Your task to perform on an android device: check battery use Image 0: 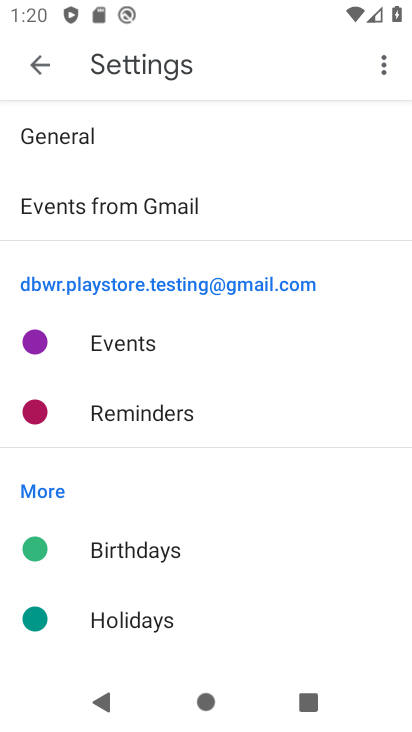
Step 0: press back button
Your task to perform on an android device: check battery use Image 1: 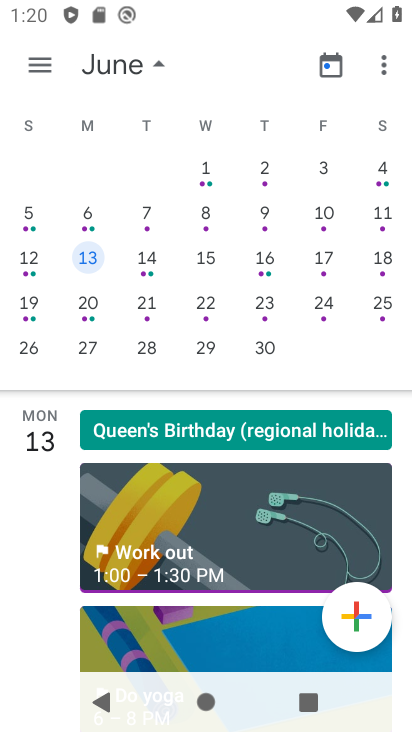
Step 1: press back button
Your task to perform on an android device: check battery use Image 2: 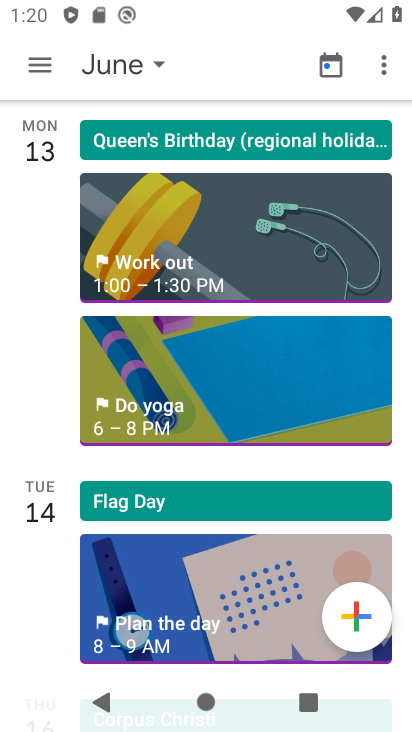
Step 2: press back button
Your task to perform on an android device: check battery use Image 3: 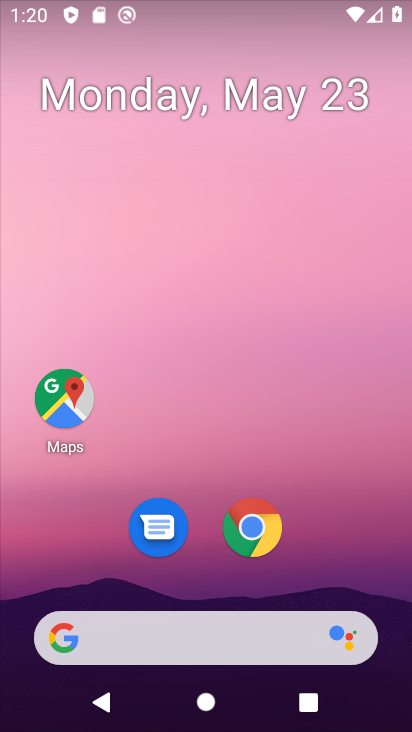
Step 3: drag from (185, 385) to (243, 41)
Your task to perform on an android device: check battery use Image 4: 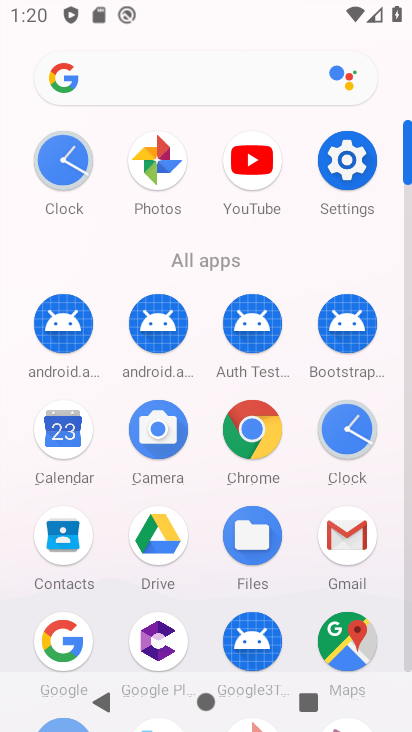
Step 4: click (351, 156)
Your task to perform on an android device: check battery use Image 5: 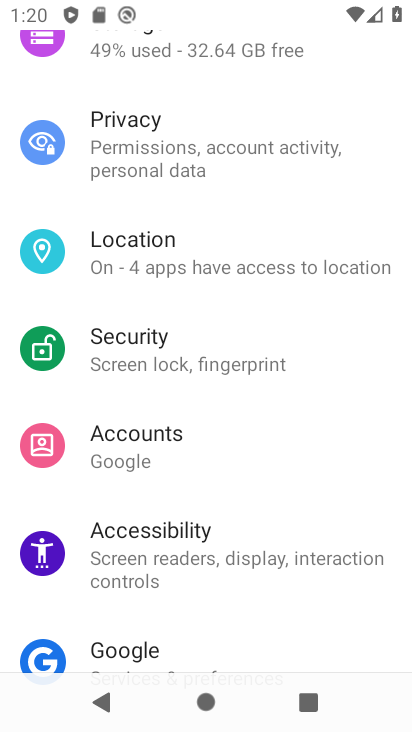
Step 5: drag from (246, 174) to (183, 622)
Your task to perform on an android device: check battery use Image 6: 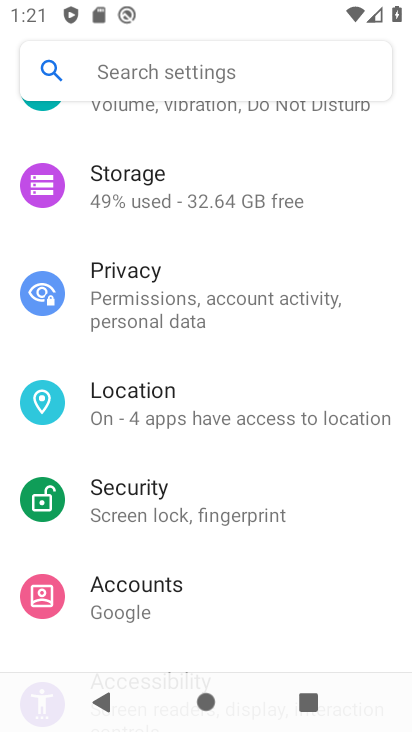
Step 6: drag from (193, 294) to (170, 591)
Your task to perform on an android device: check battery use Image 7: 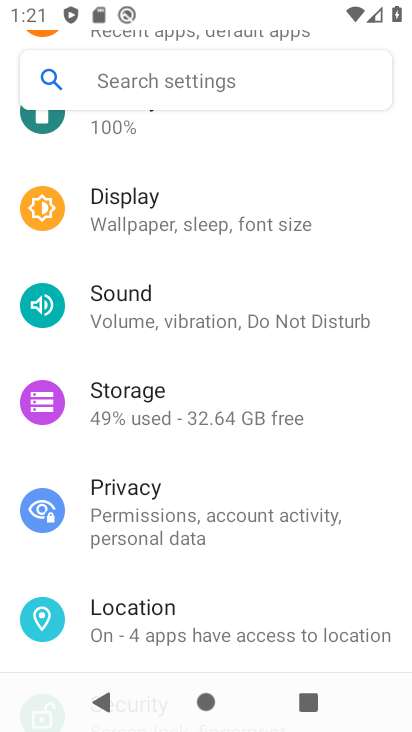
Step 7: drag from (196, 202) to (172, 638)
Your task to perform on an android device: check battery use Image 8: 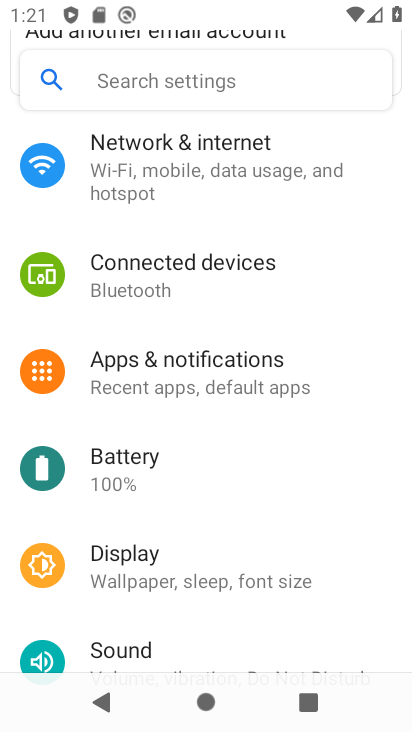
Step 8: click (151, 480)
Your task to perform on an android device: check battery use Image 9: 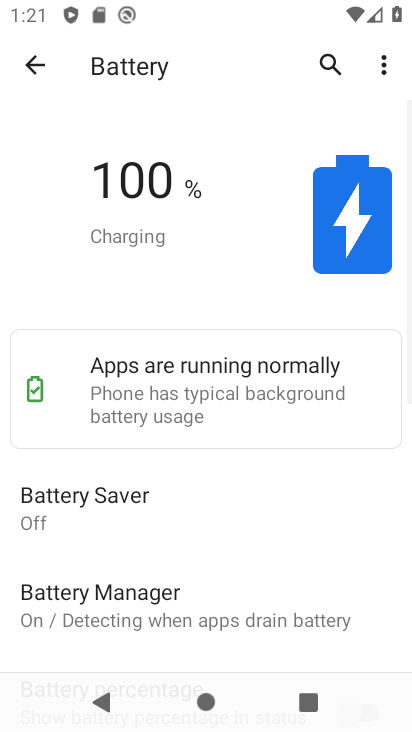
Step 9: click (378, 55)
Your task to perform on an android device: check battery use Image 10: 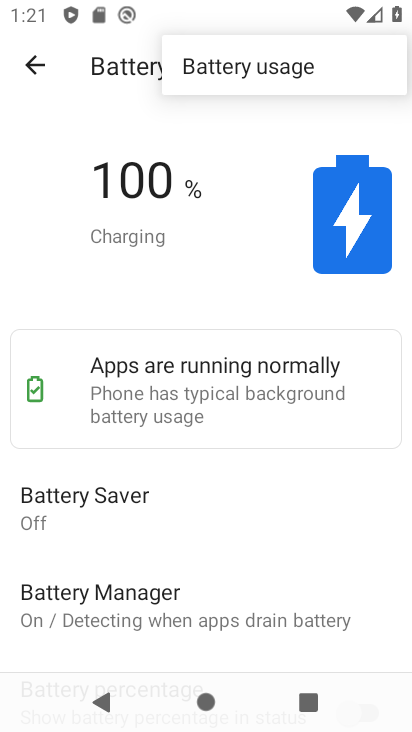
Step 10: click (260, 66)
Your task to perform on an android device: check battery use Image 11: 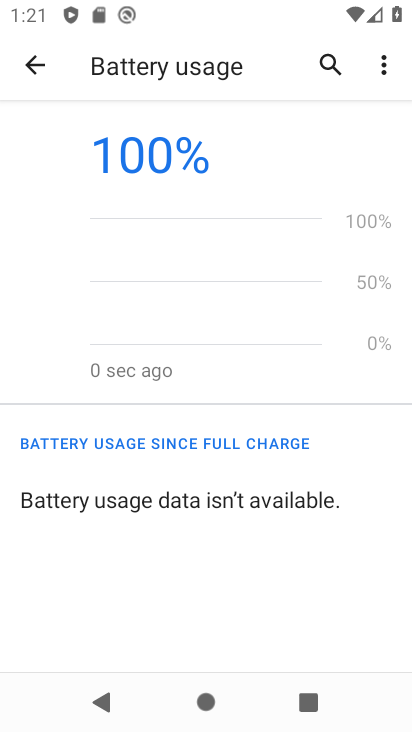
Step 11: task complete